Your task to perform on an android device: clear history in the chrome app Image 0: 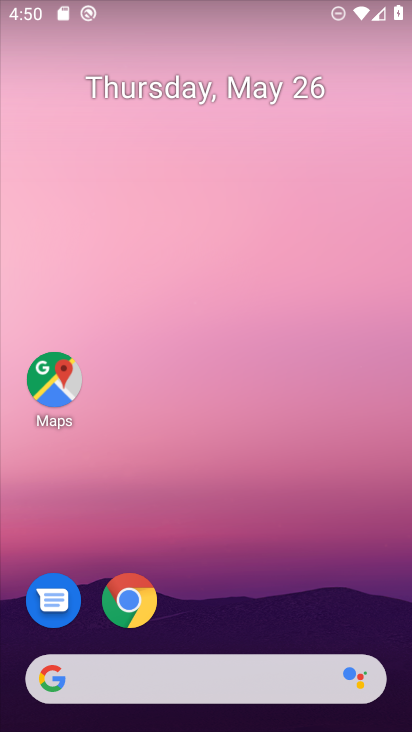
Step 0: click (140, 610)
Your task to perform on an android device: clear history in the chrome app Image 1: 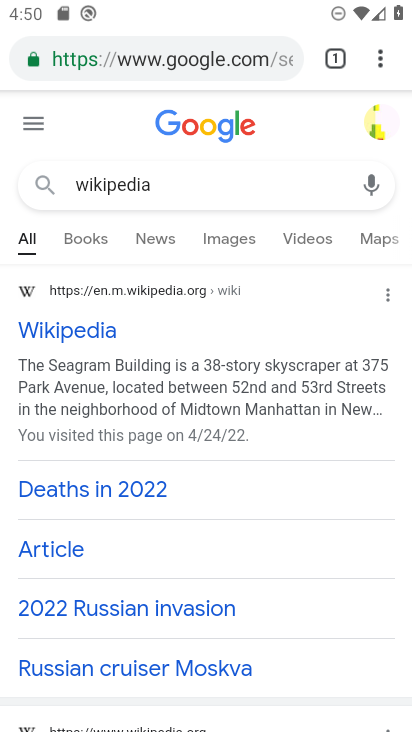
Step 1: click (388, 54)
Your task to perform on an android device: clear history in the chrome app Image 2: 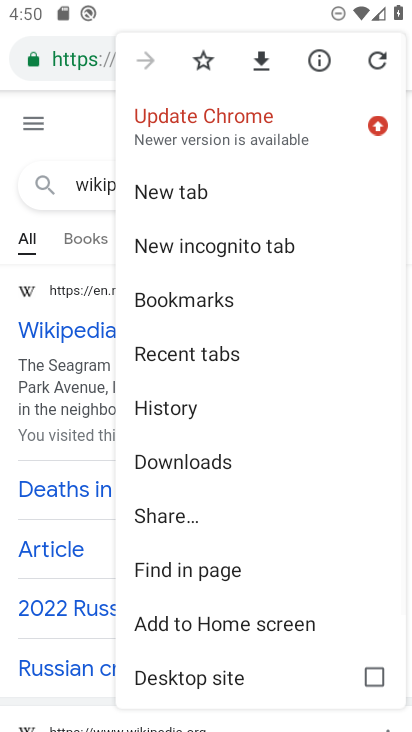
Step 2: click (205, 411)
Your task to perform on an android device: clear history in the chrome app Image 3: 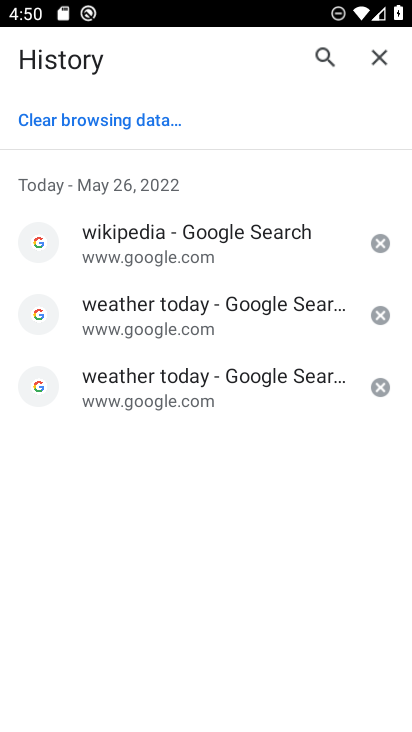
Step 3: click (173, 115)
Your task to perform on an android device: clear history in the chrome app Image 4: 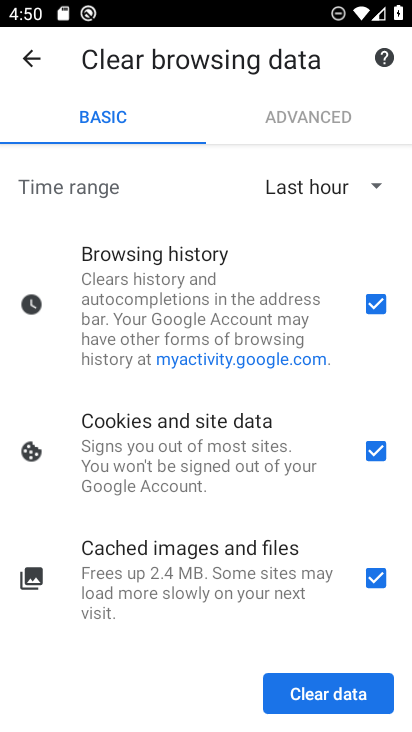
Step 4: click (308, 708)
Your task to perform on an android device: clear history in the chrome app Image 5: 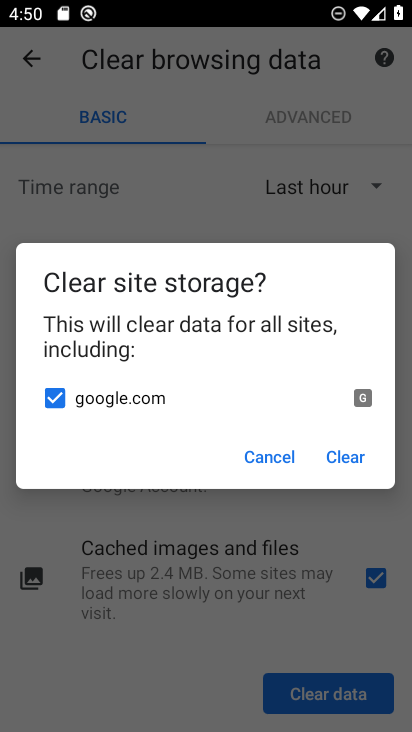
Step 5: click (354, 450)
Your task to perform on an android device: clear history in the chrome app Image 6: 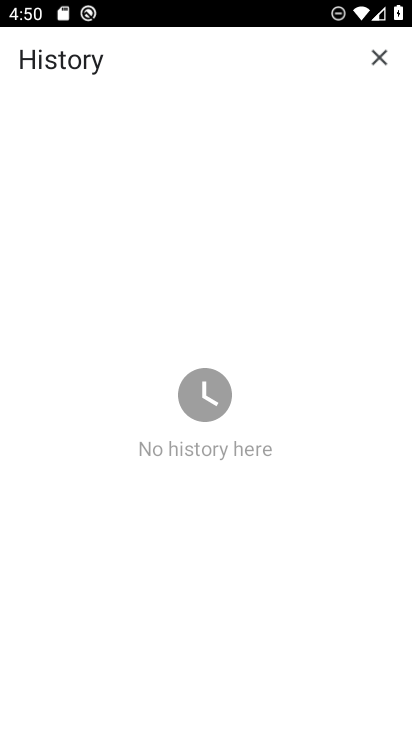
Step 6: task complete